Your task to perform on an android device: Open wifi settings Image 0: 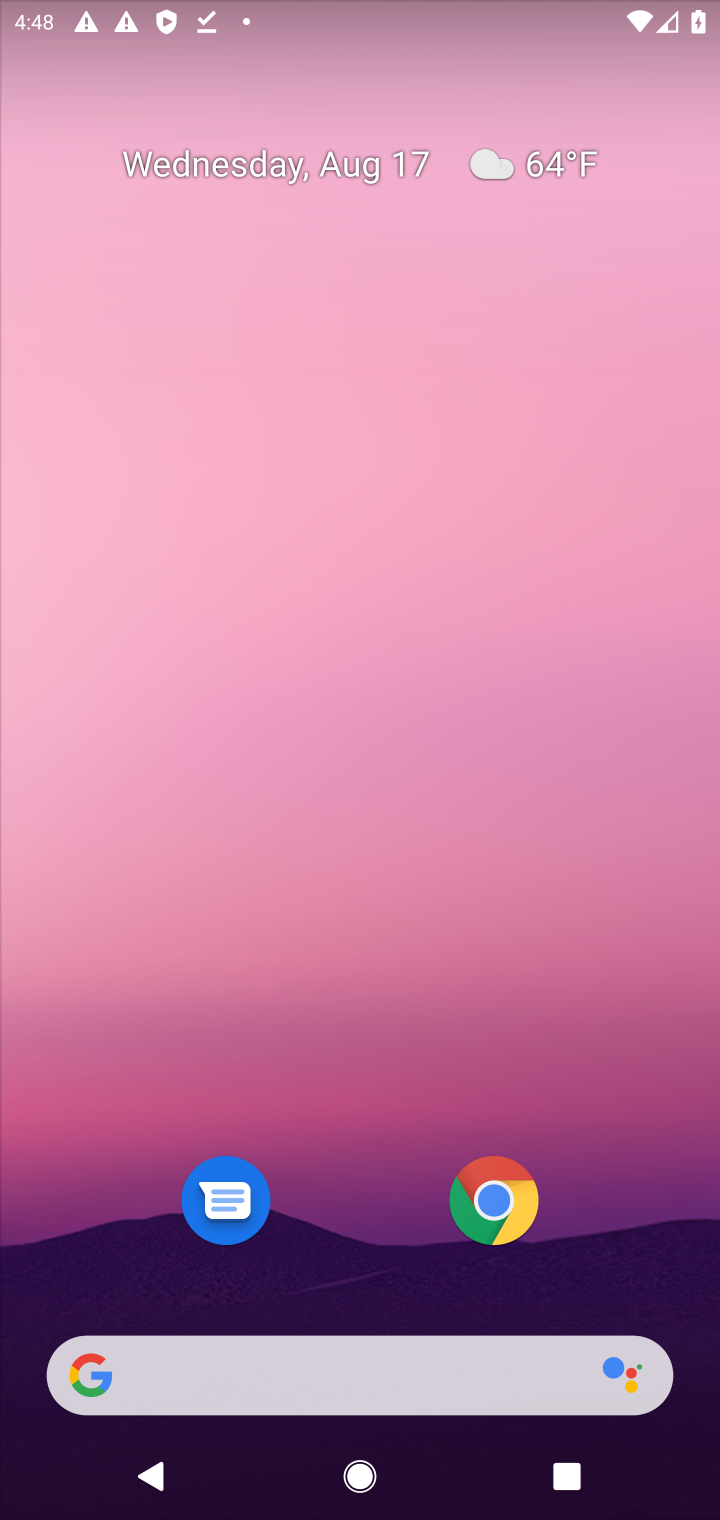
Step 0: drag from (382, 1151) to (382, 130)
Your task to perform on an android device: Open wifi settings Image 1: 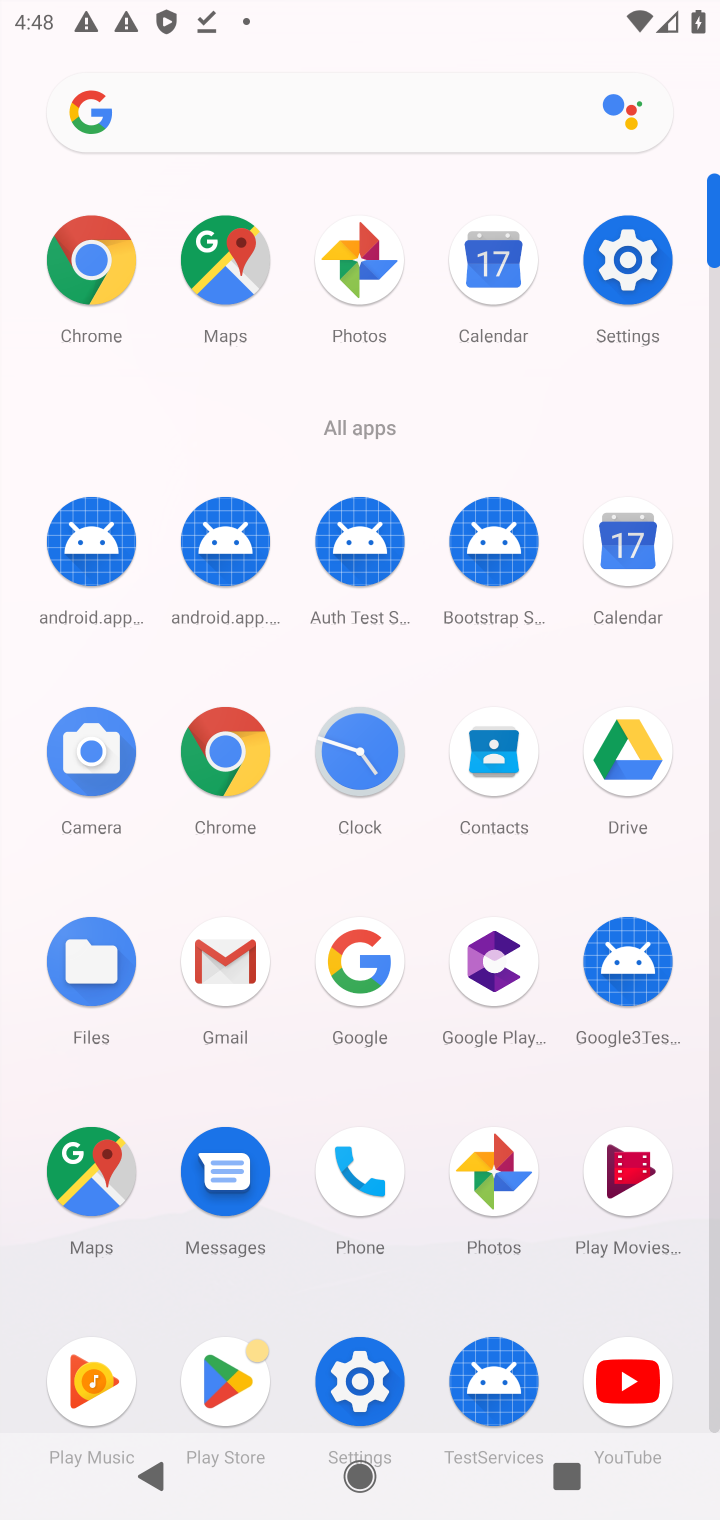
Step 1: click (633, 268)
Your task to perform on an android device: Open wifi settings Image 2: 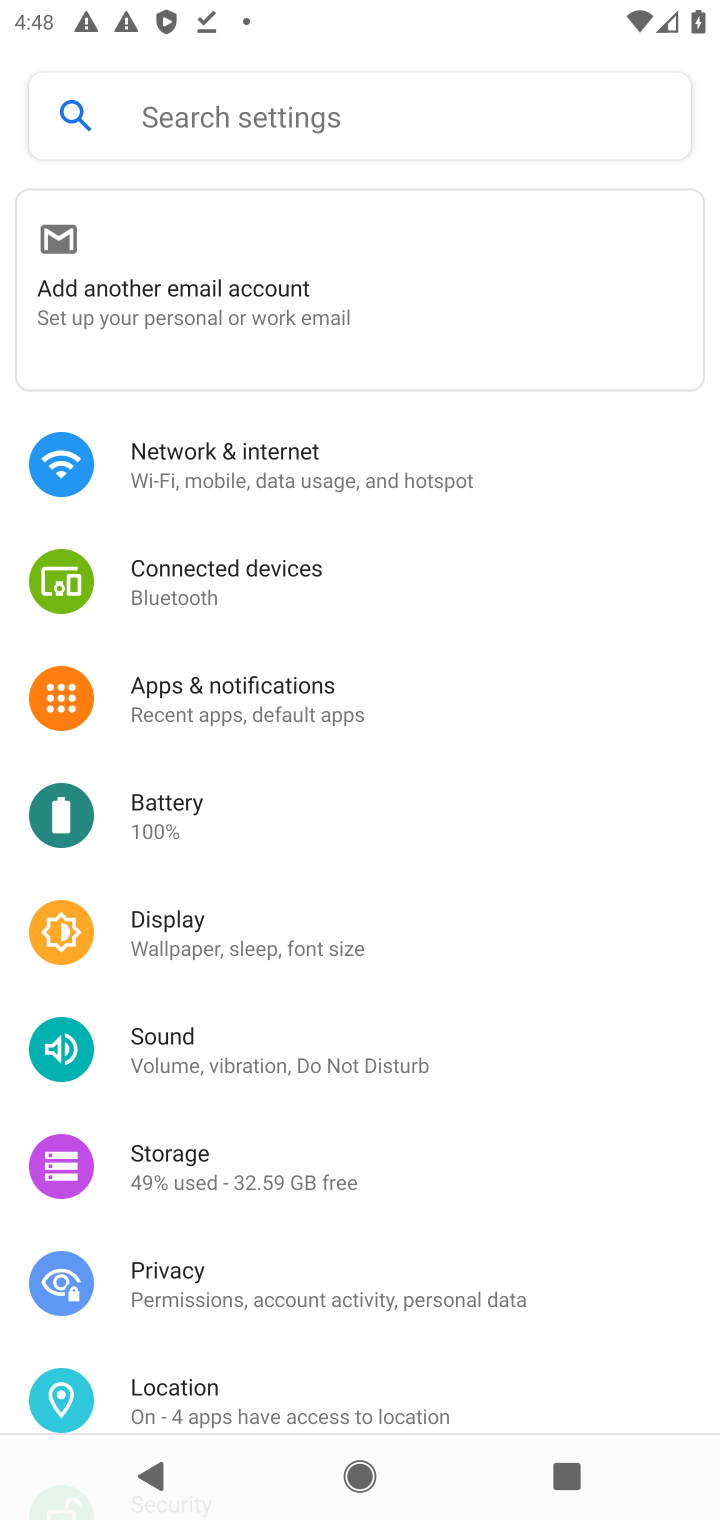
Step 2: click (289, 455)
Your task to perform on an android device: Open wifi settings Image 3: 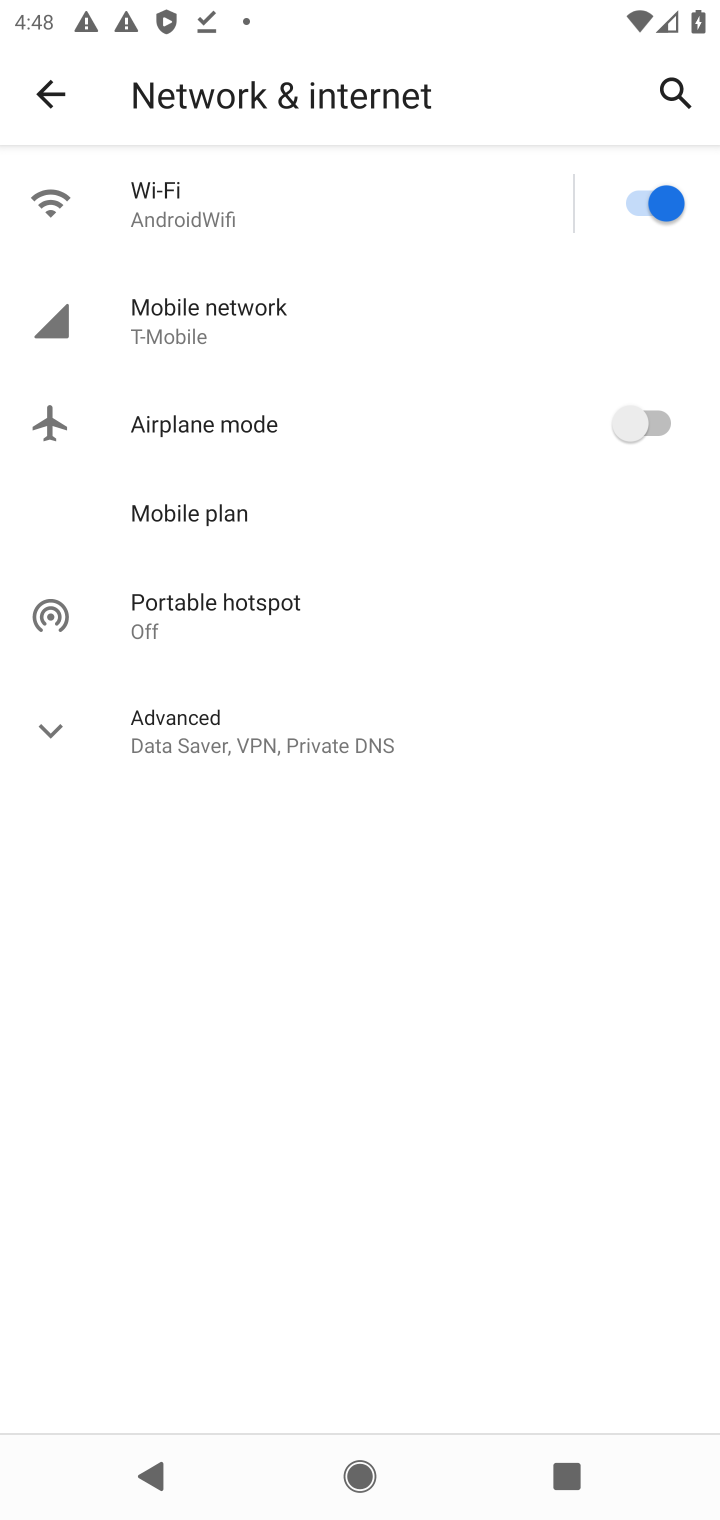
Step 3: click (138, 197)
Your task to perform on an android device: Open wifi settings Image 4: 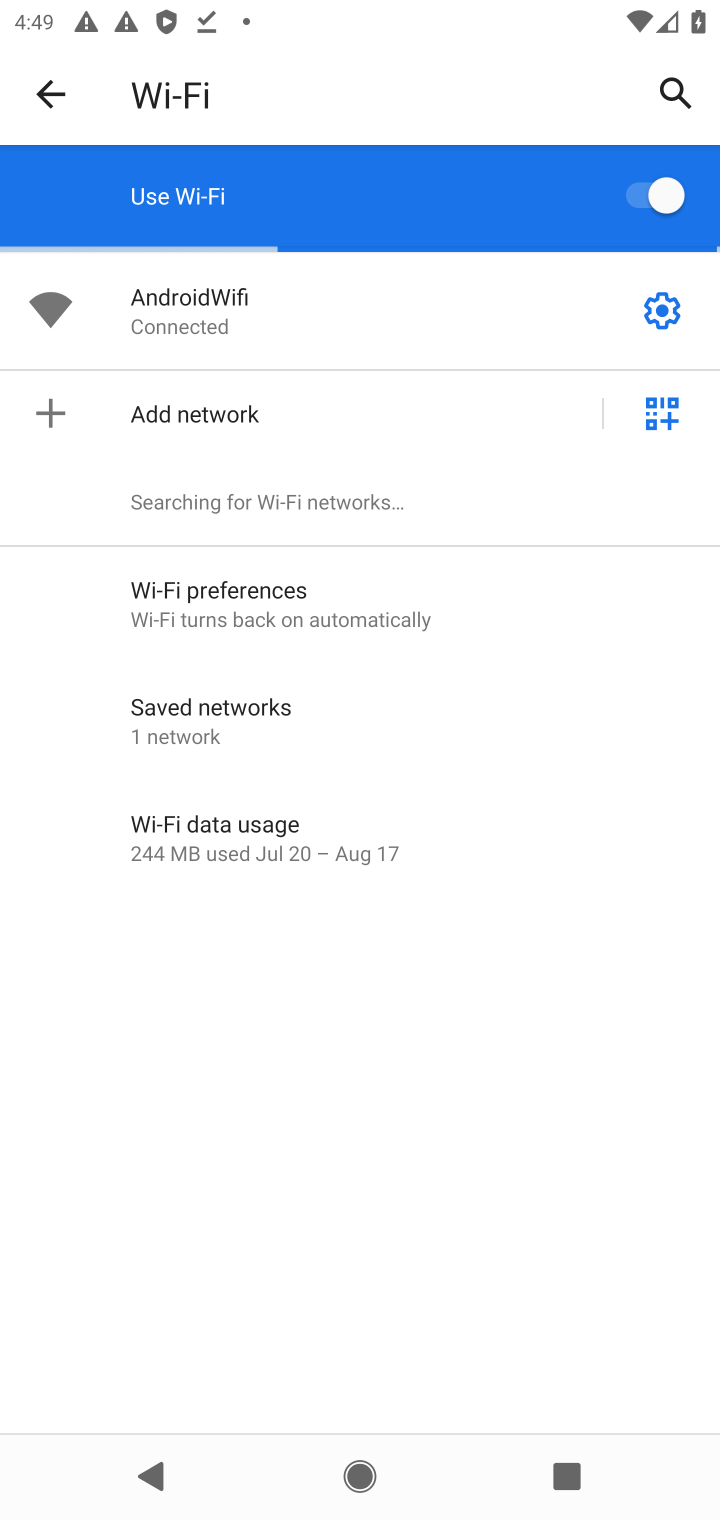
Step 4: task complete